Your task to perform on an android device: turn notification dots off Image 0: 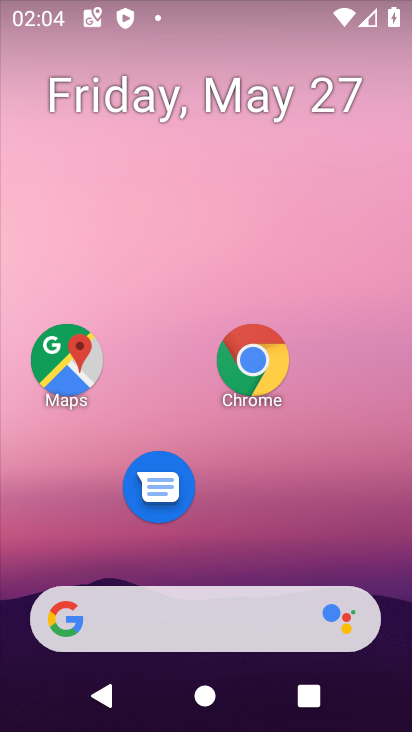
Step 0: drag from (269, 516) to (270, 111)
Your task to perform on an android device: turn notification dots off Image 1: 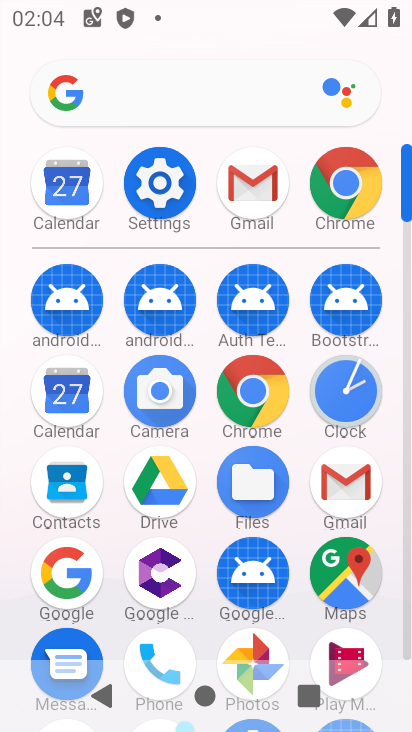
Step 1: click (165, 185)
Your task to perform on an android device: turn notification dots off Image 2: 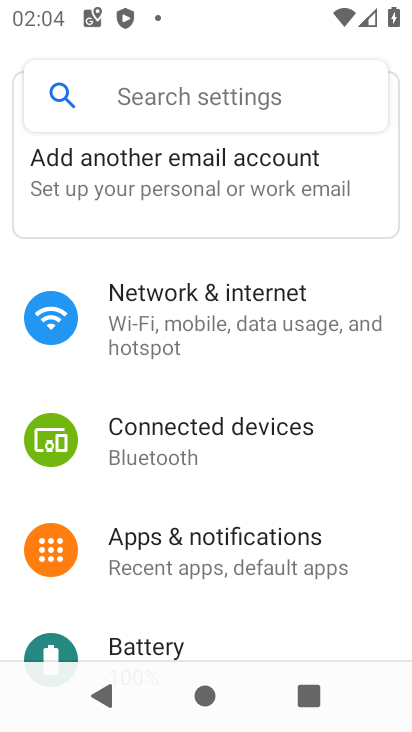
Step 2: click (265, 562)
Your task to perform on an android device: turn notification dots off Image 3: 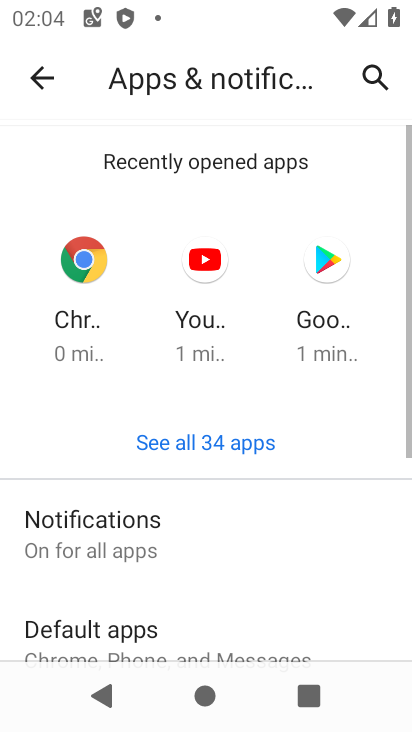
Step 3: click (175, 533)
Your task to perform on an android device: turn notification dots off Image 4: 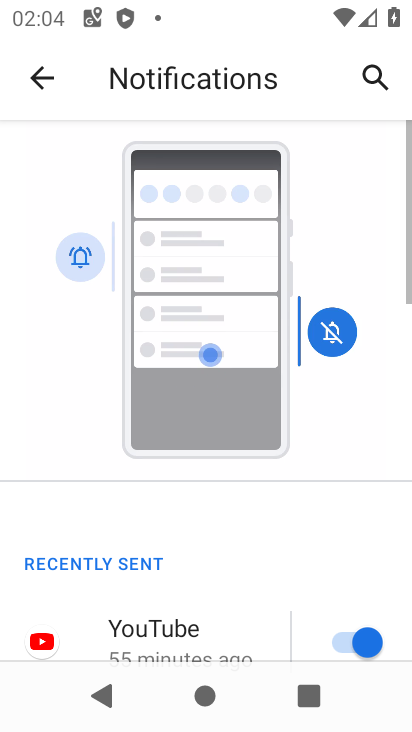
Step 4: drag from (282, 510) to (318, 22)
Your task to perform on an android device: turn notification dots off Image 5: 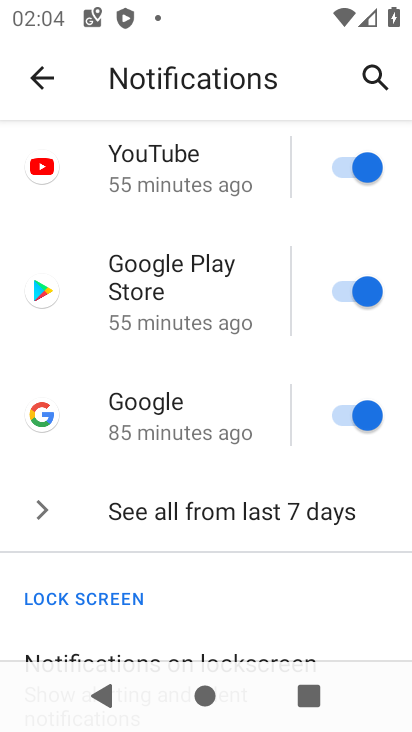
Step 5: drag from (191, 508) to (214, 171)
Your task to perform on an android device: turn notification dots off Image 6: 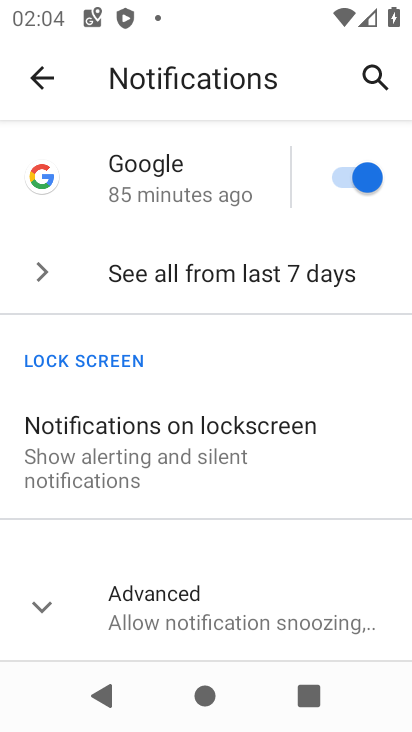
Step 6: click (162, 625)
Your task to perform on an android device: turn notification dots off Image 7: 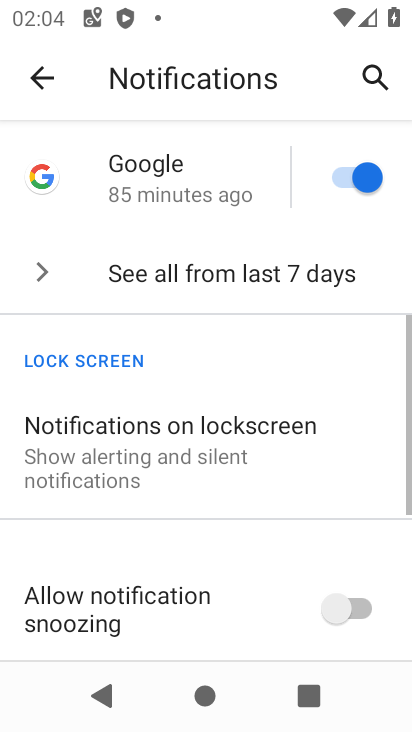
Step 7: drag from (264, 522) to (266, 150)
Your task to perform on an android device: turn notification dots off Image 8: 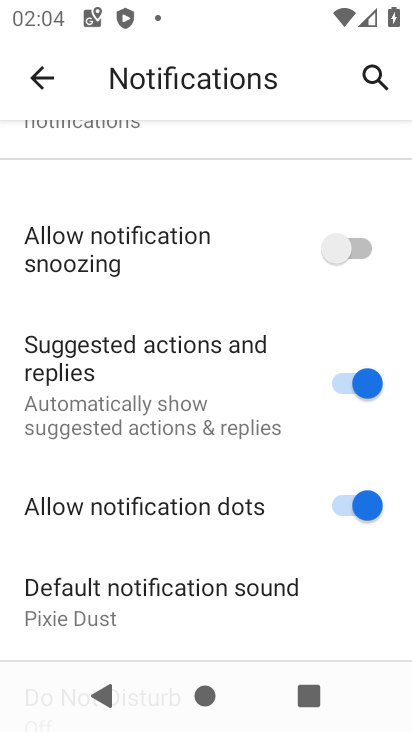
Step 8: click (352, 515)
Your task to perform on an android device: turn notification dots off Image 9: 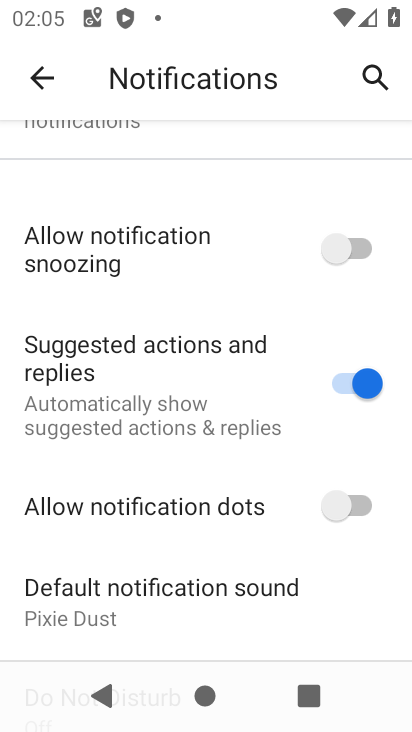
Step 9: task complete